Your task to perform on an android device: turn on airplane mode Image 0: 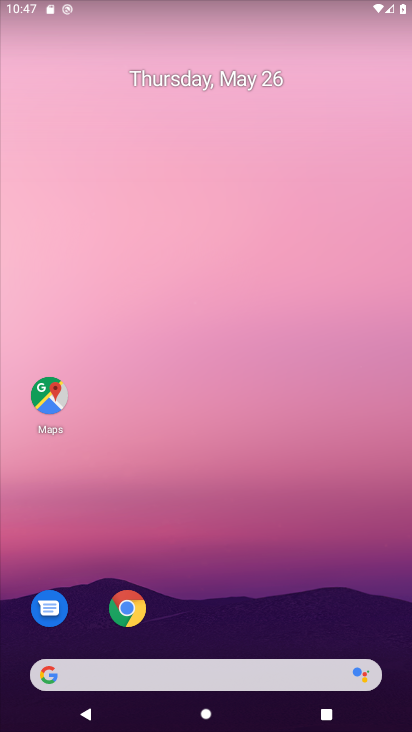
Step 0: drag from (399, 694) to (352, 214)
Your task to perform on an android device: turn on airplane mode Image 1: 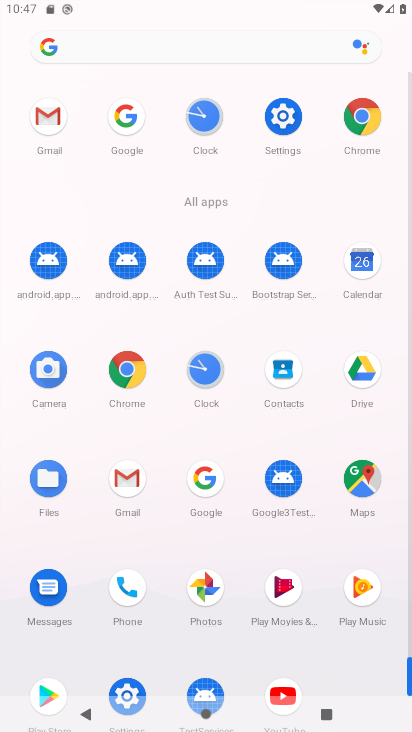
Step 1: click (276, 130)
Your task to perform on an android device: turn on airplane mode Image 2: 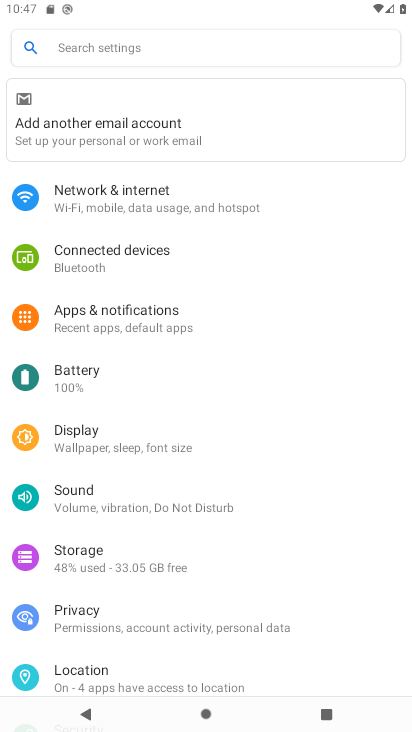
Step 2: click (121, 204)
Your task to perform on an android device: turn on airplane mode Image 3: 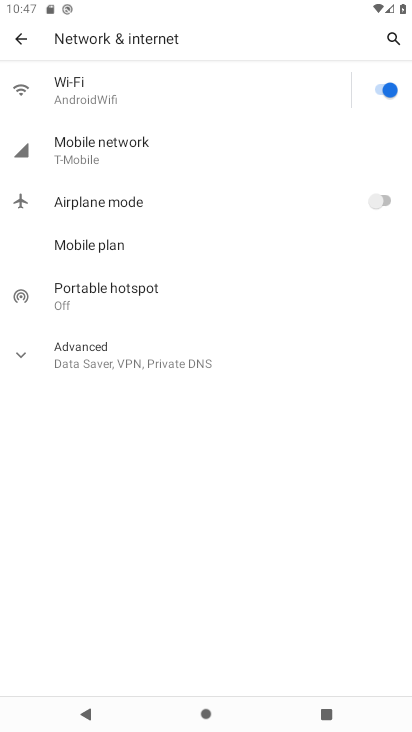
Step 3: click (385, 201)
Your task to perform on an android device: turn on airplane mode Image 4: 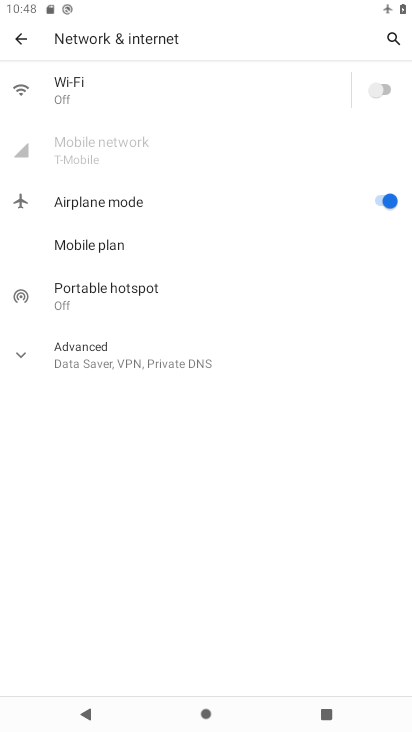
Step 4: task complete